Your task to perform on an android device: set default search engine in the chrome app Image 0: 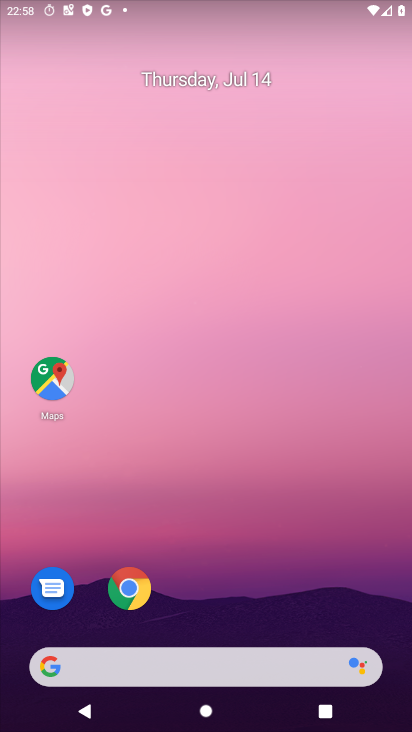
Step 0: click (128, 589)
Your task to perform on an android device: set default search engine in the chrome app Image 1: 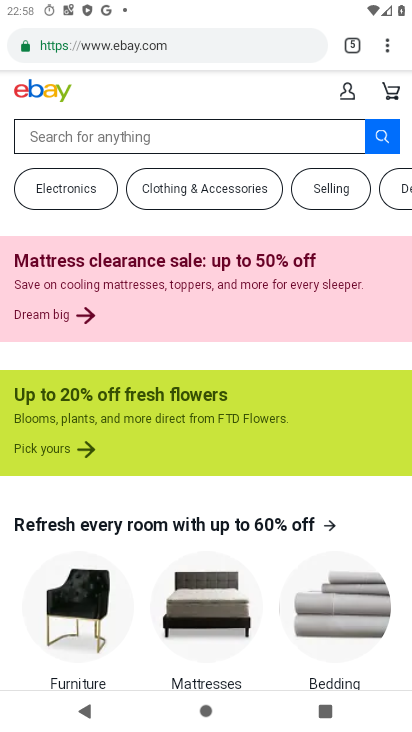
Step 1: click (382, 46)
Your task to perform on an android device: set default search engine in the chrome app Image 2: 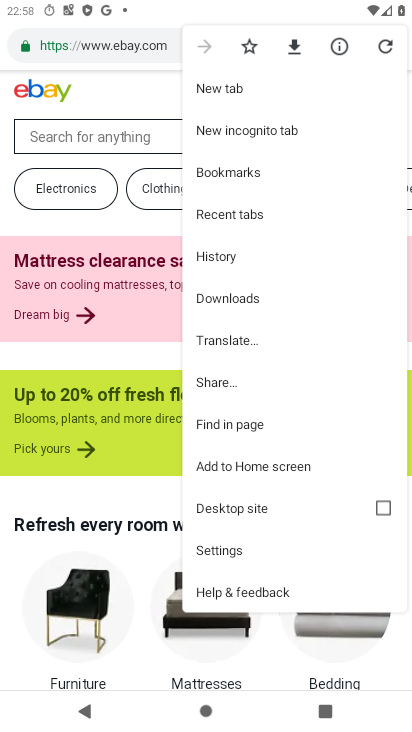
Step 2: click (226, 549)
Your task to perform on an android device: set default search engine in the chrome app Image 3: 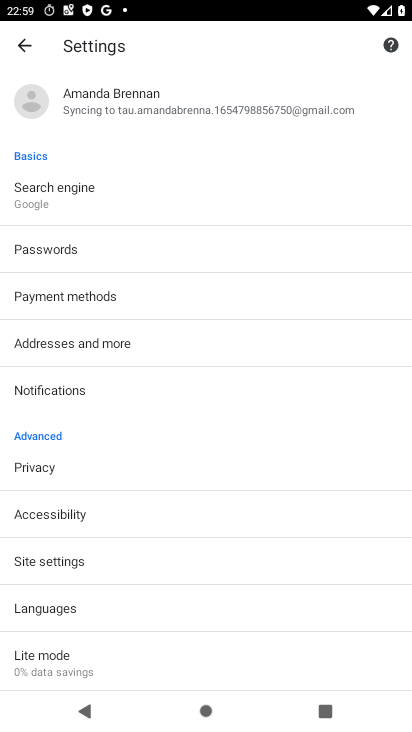
Step 3: click (88, 197)
Your task to perform on an android device: set default search engine in the chrome app Image 4: 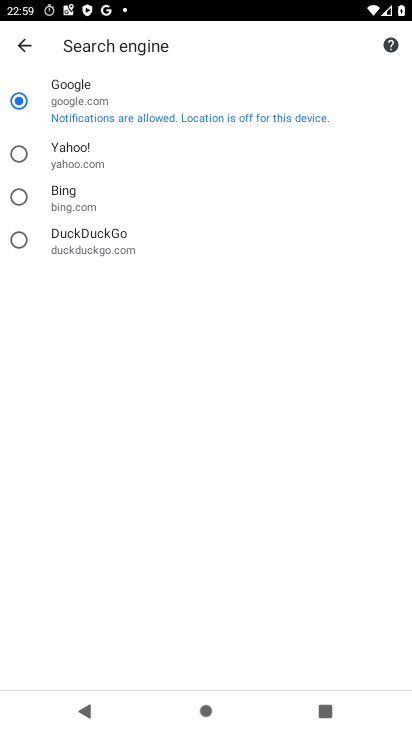
Step 4: task complete